Your task to perform on an android device: Open Chrome and go to settings Image 0: 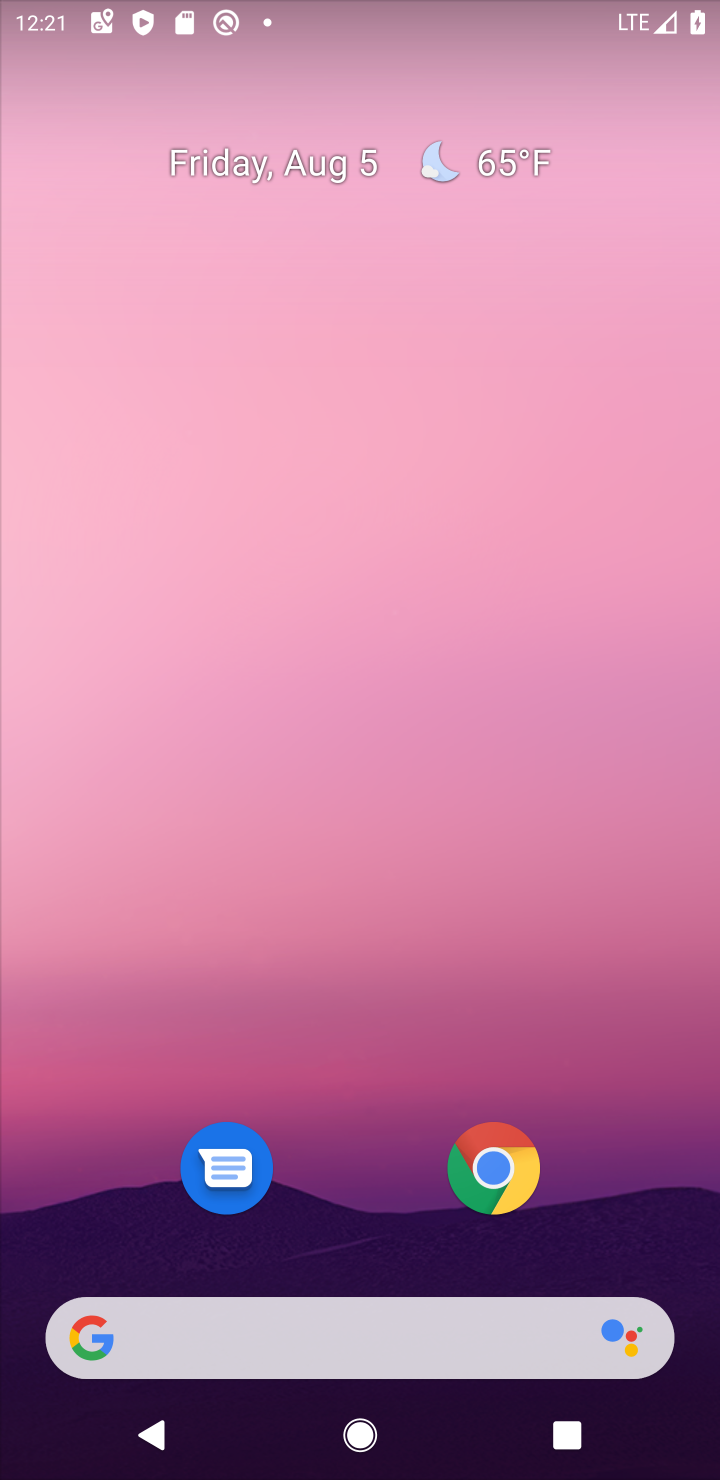
Step 0: drag from (585, 1241) to (345, 128)
Your task to perform on an android device: Open Chrome and go to settings Image 1: 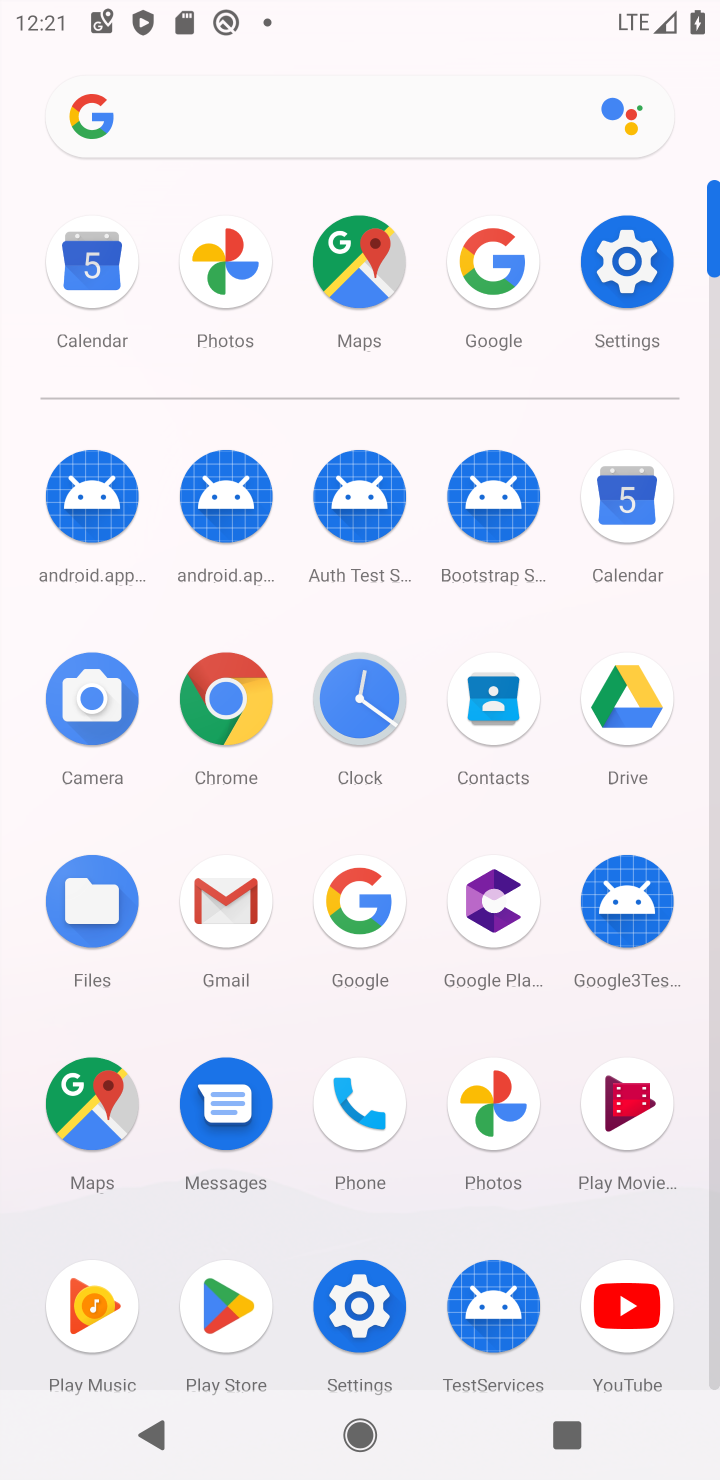
Step 1: click (233, 723)
Your task to perform on an android device: Open Chrome and go to settings Image 2: 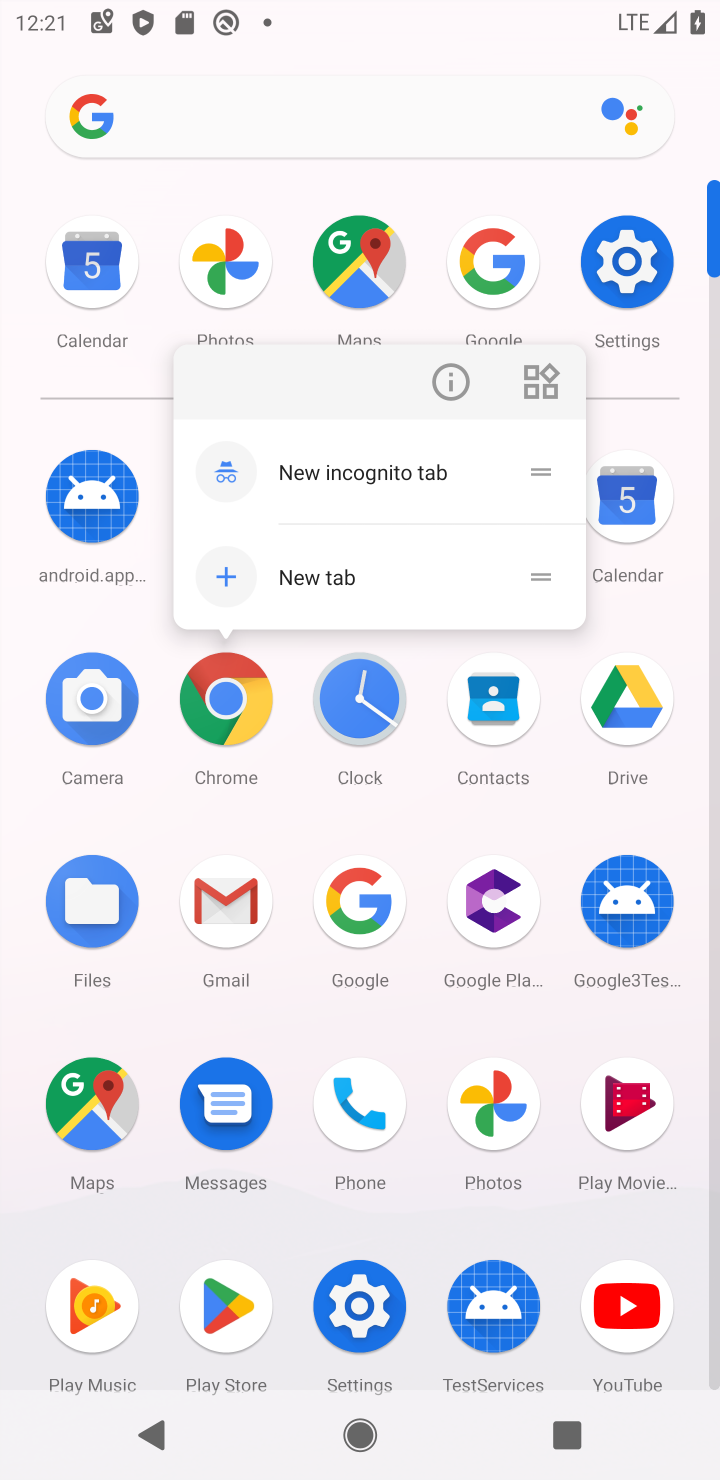
Step 2: click (233, 723)
Your task to perform on an android device: Open Chrome and go to settings Image 3: 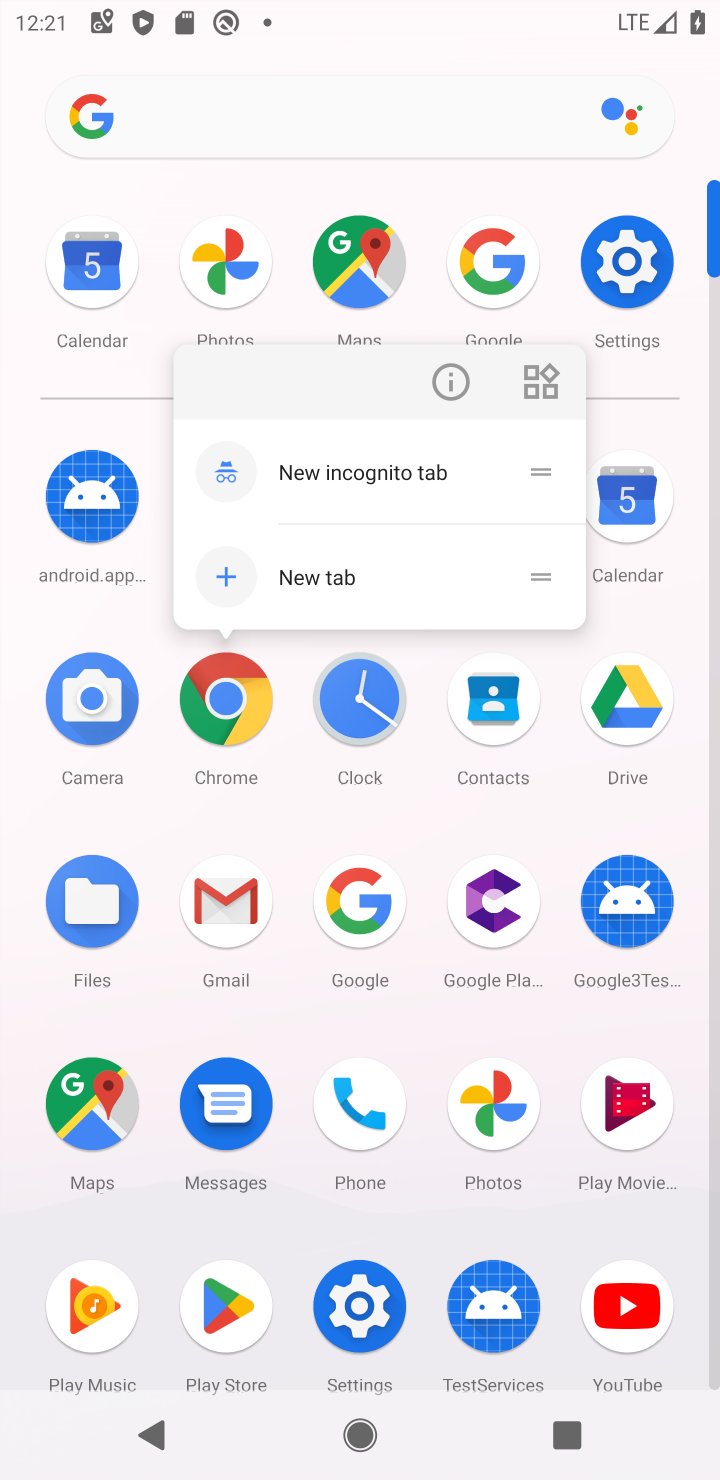
Step 3: click (233, 723)
Your task to perform on an android device: Open Chrome and go to settings Image 4: 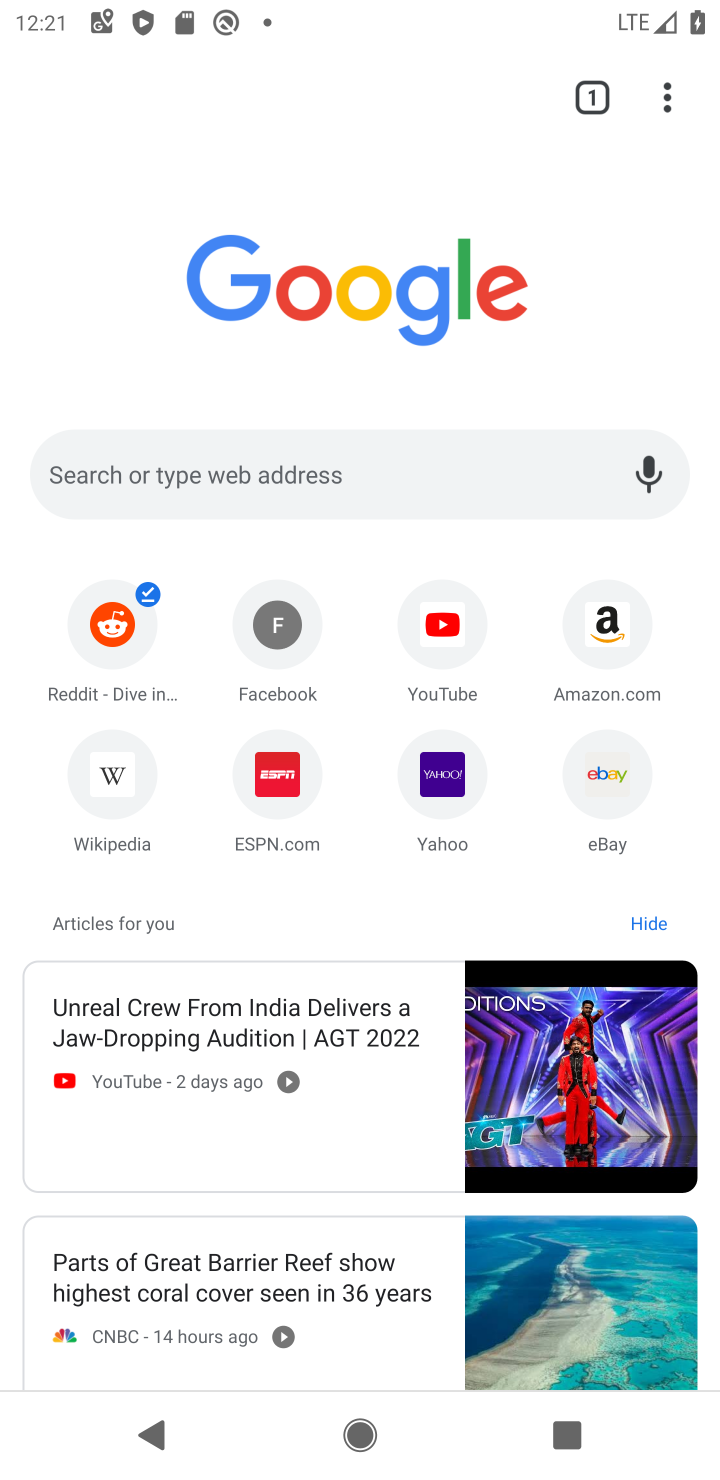
Step 4: click (677, 88)
Your task to perform on an android device: Open Chrome and go to settings Image 5: 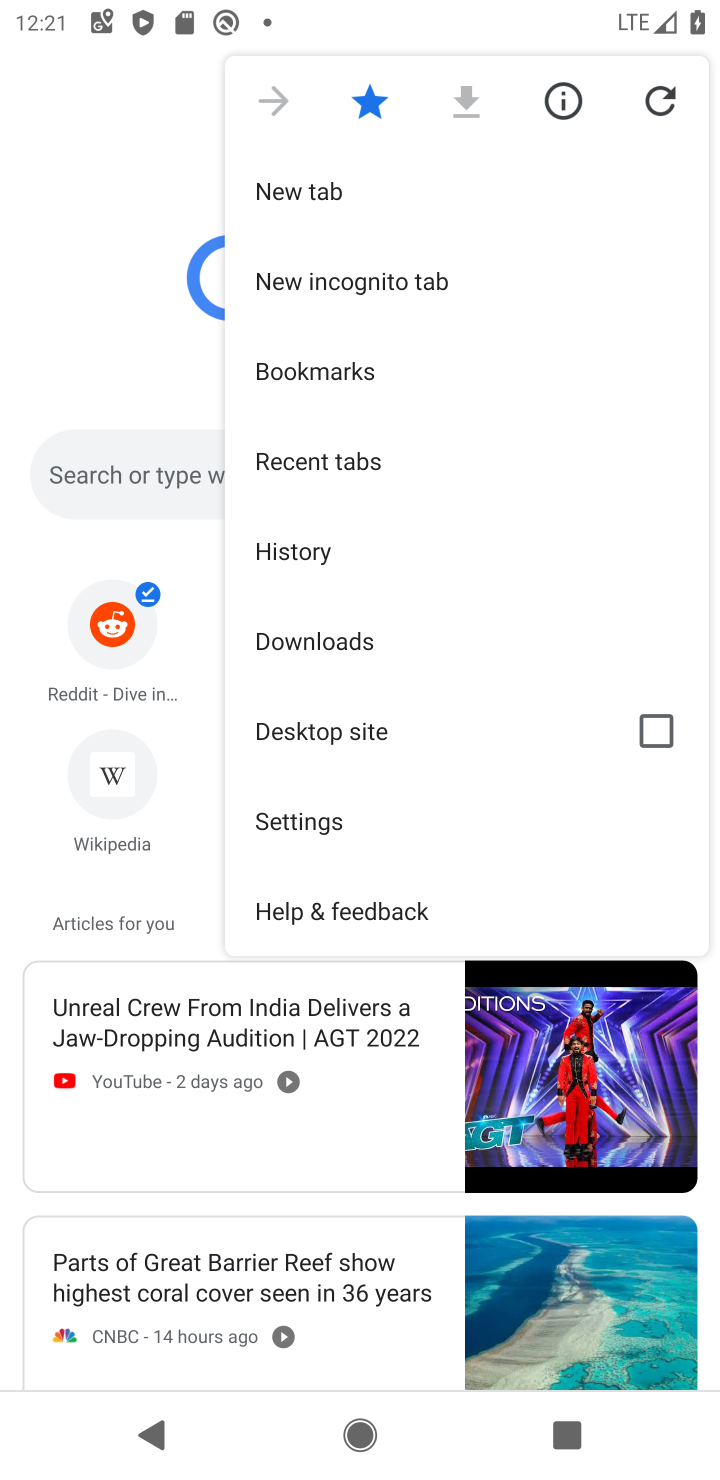
Step 5: click (323, 833)
Your task to perform on an android device: Open Chrome and go to settings Image 6: 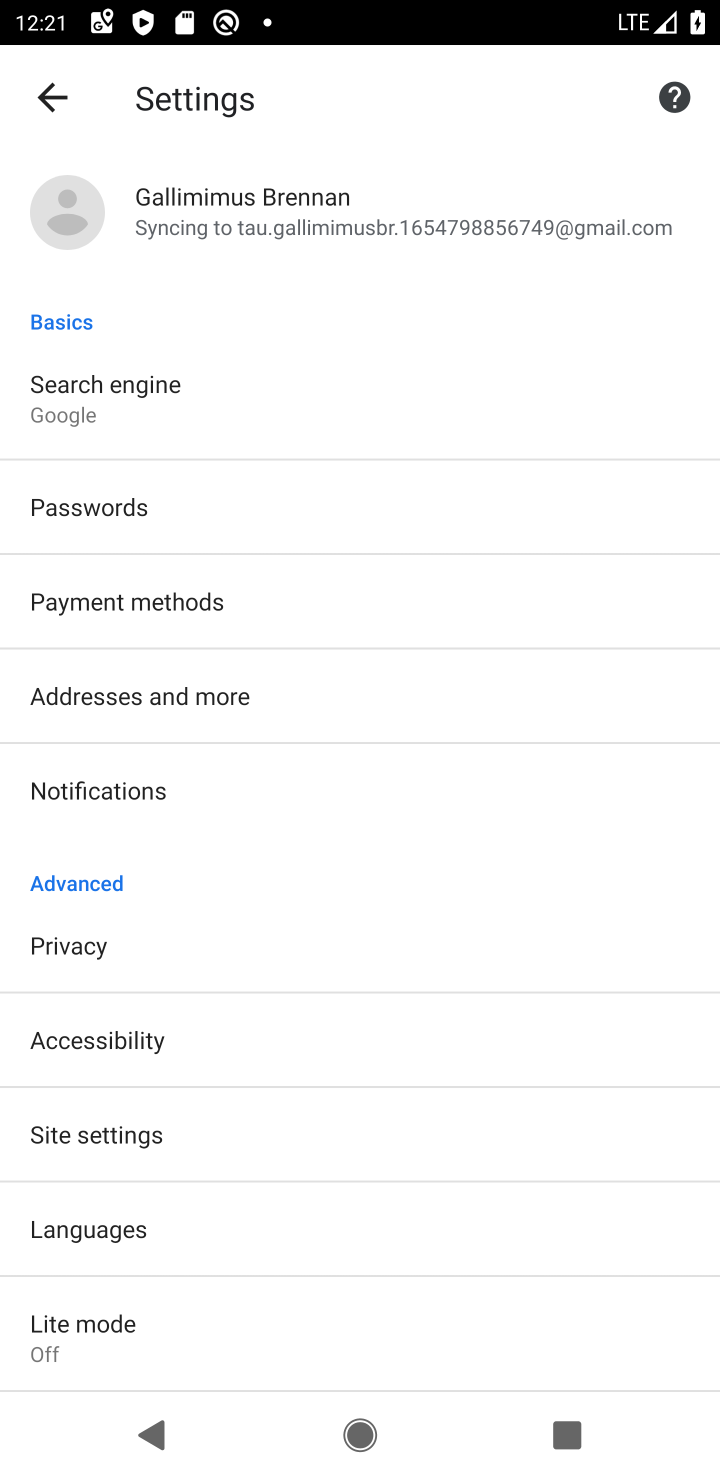
Step 6: task complete